Your task to perform on an android device: allow cookies in the chrome app Image 0: 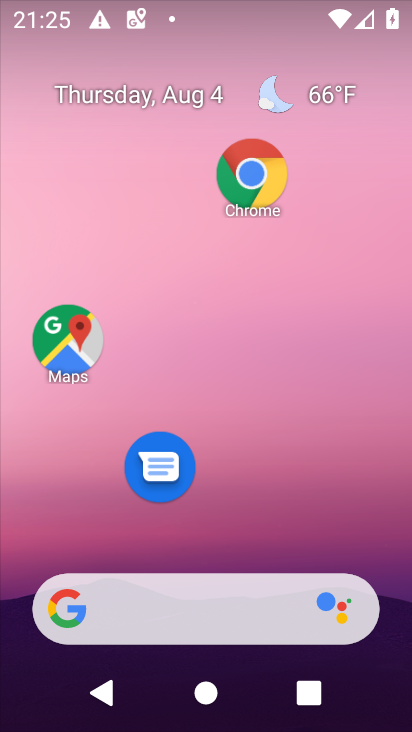
Step 0: drag from (290, 520) to (304, 0)
Your task to perform on an android device: allow cookies in the chrome app Image 1: 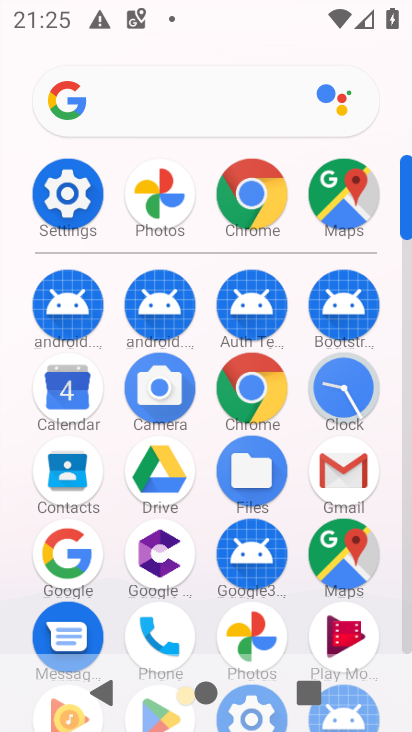
Step 1: click (259, 374)
Your task to perform on an android device: allow cookies in the chrome app Image 2: 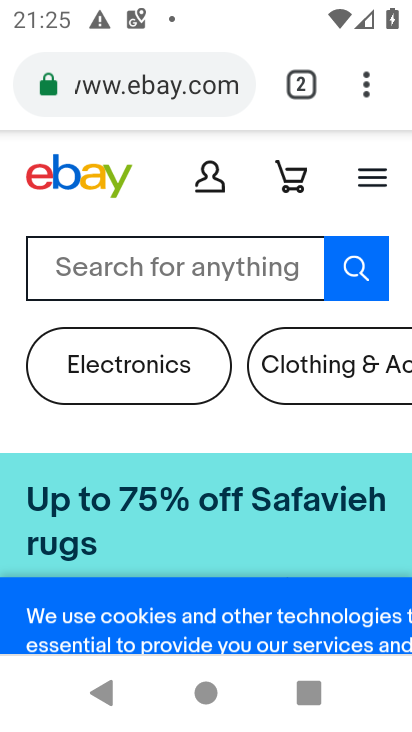
Step 2: click (120, 91)
Your task to perform on an android device: allow cookies in the chrome app Image 3: 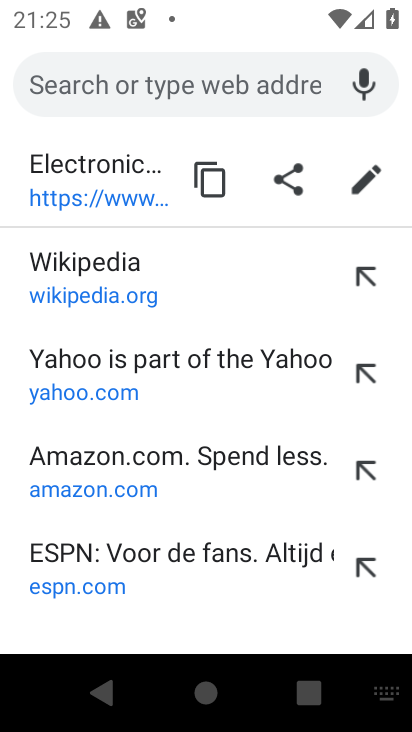
Step 3: click (323, 85)
Your task to perform on an android device: allow cookies in the chrome app Image 4: 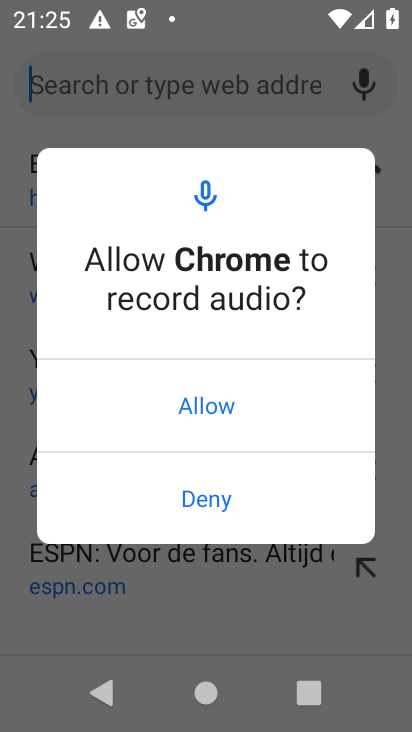
Step 4: press back button
Your task to perform on an android device: allow cookies in the chrome app Image 5: 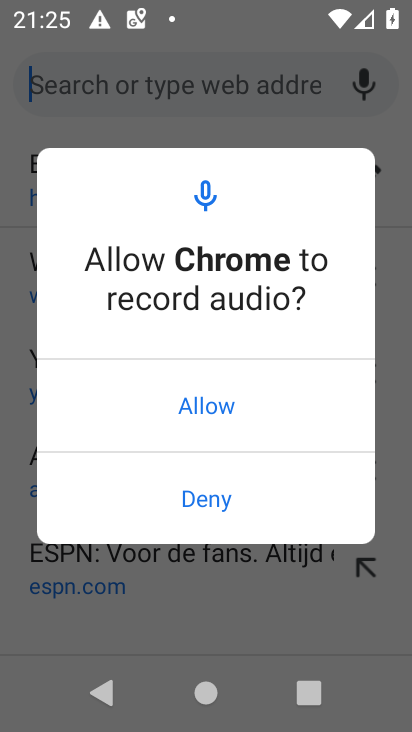
Step 5: press back button
Your task to perform on an android device: allow cookies in the chrome app Image 6: 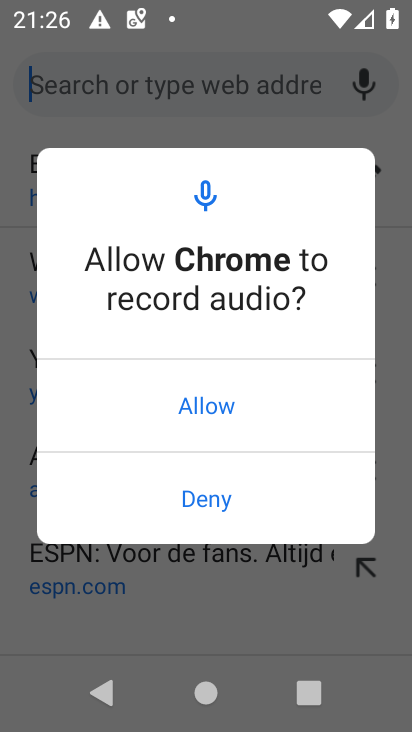
Step 6: click (221, 498)
Your task to perform on an android device: allow cookies in the chrome app Image 7: 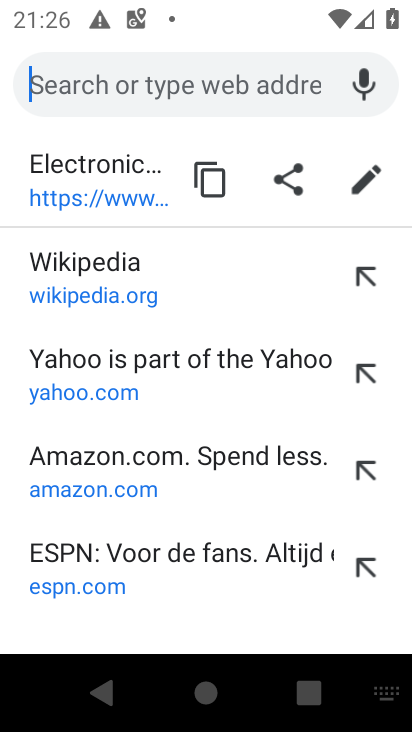
Step 7: press back button
Your task to perform on an android device: allow cookies in the chrome app Image 8: 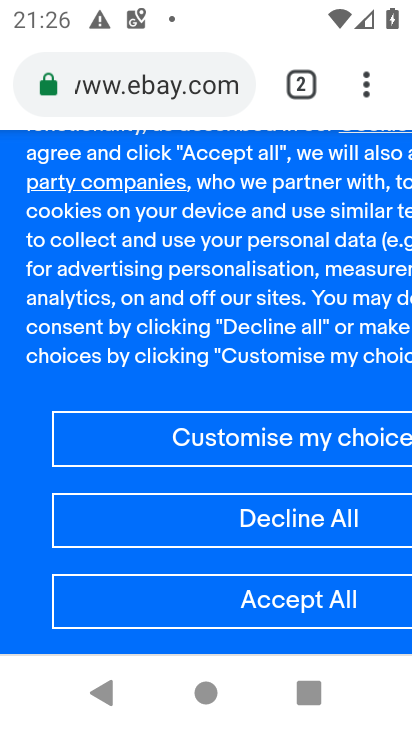
Step 8: drag from (362, 82) to (108, 525)
Your task to perform on an android device: allow cookies in the chrome app Image 9: 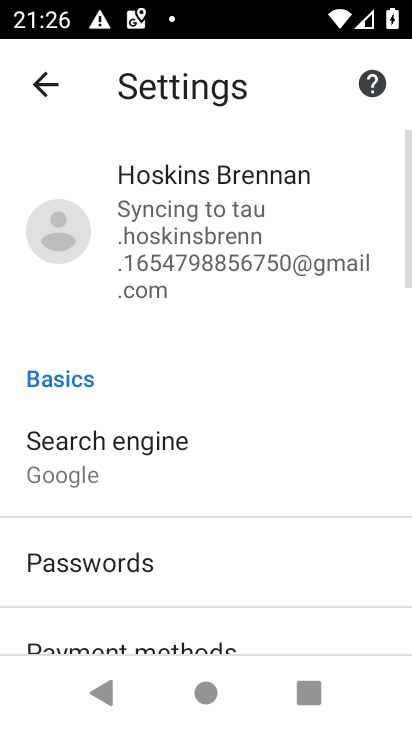
Step 9: drag from (172, 601) to (246, 221)
Your task to perform on an android device: allow cookies in the chrome app Image 10: 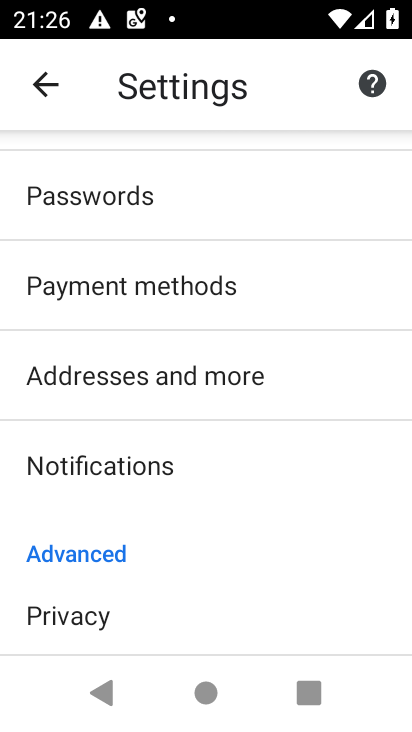
Step 10: drag from (102, 606) to (187, 294)
Your task to perform on an android device: allow cookies in the chrome app Image 11: 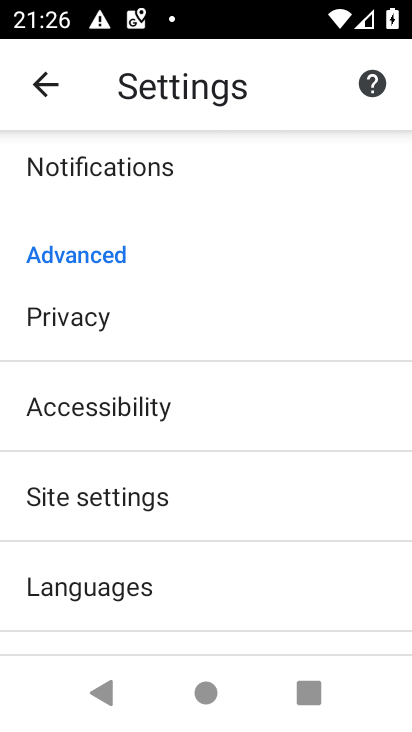
Step 11: click (136, 498)
Your task to perform on an android device: allow cookies in the chrome app Image 12: 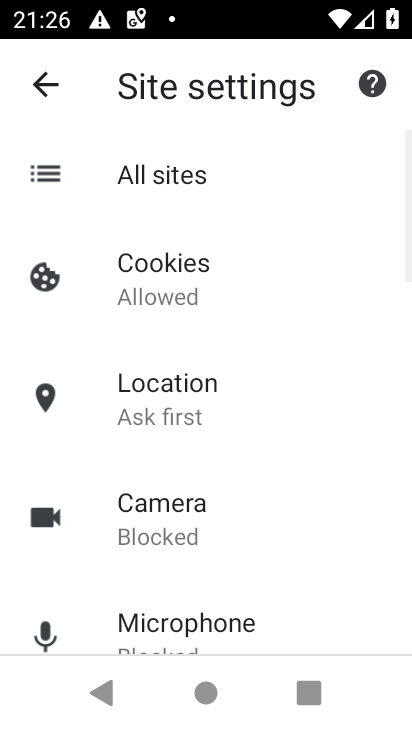
Step 12: click (169, 295)
Your task to perform on an android device: allow cookies in the chrome app Image 13: 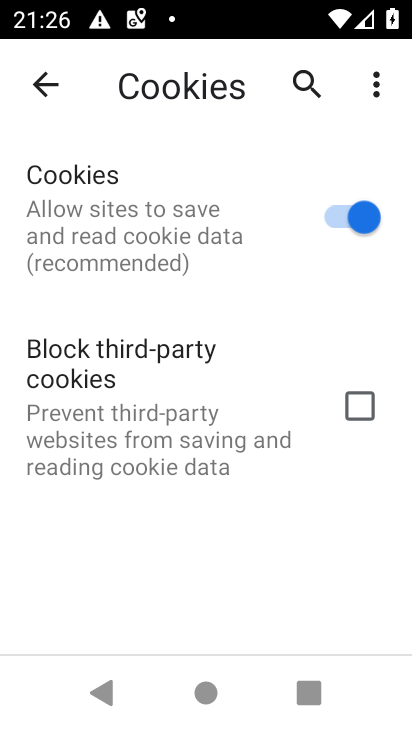
Step 13: task complete